Your task to perform on an android device: Look up the best rated book on Goodreads Image 0: 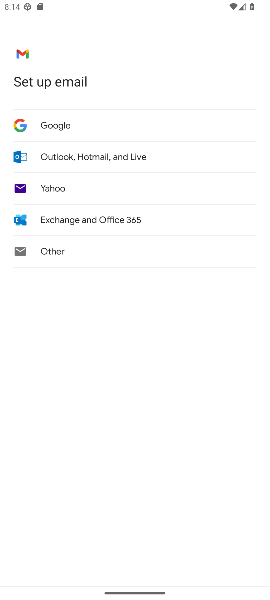
Step 0: press home button
Your task to perform on an android device: Look up the best rated book on Goodreads Image 1: 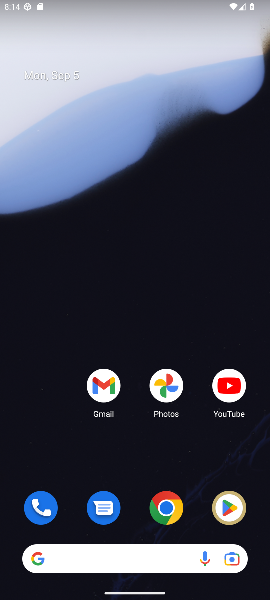
Step 1: click (173, 508)
Your task to perform on an android device: Look up the best rated book on Goodreads Image 2: 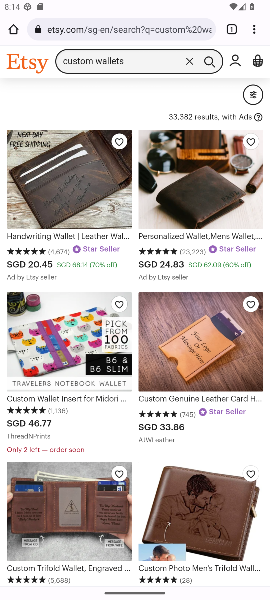
Step 2: click (119, 33)
Your task to perform on an android device: Look up the best rated book on Goodreads Image 3: 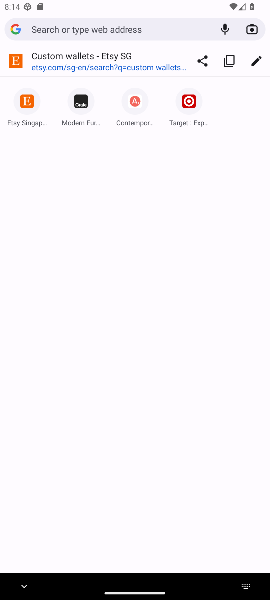
Step 3: type "goodreads"
Your task to perform on an android device: Look up the best rated book on Goodreads Image 4: 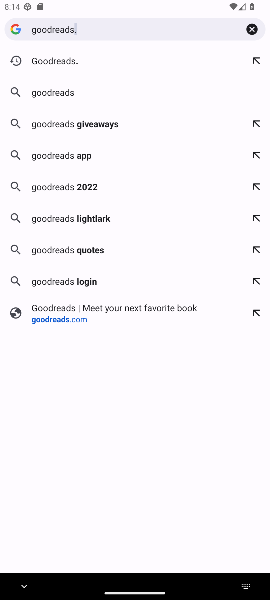
Step 4: click (51, 63)
Your task to perform on an android device: Look up the best rated book on Goodreads Image 5: 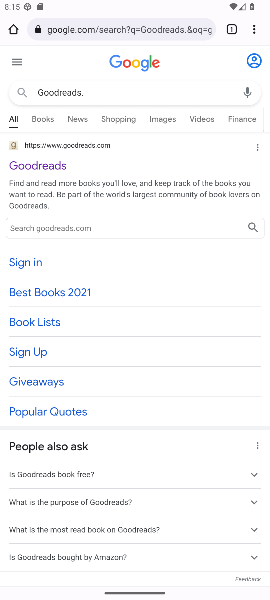
Step 5: click (41, 164)
Your task to perform on an android device: Look up the best rated book on Goodreads Image 6: 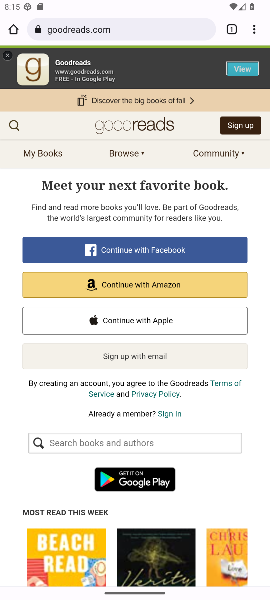
Step 6: click (12, 126)
Your task to perform on an android device: Look up the best rated book on Goodreads Image 7: 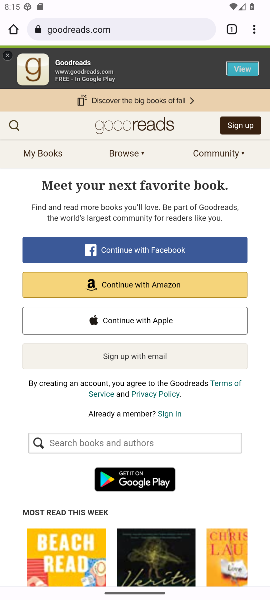
Step 7: click (14, 124)
Your task to perform on an android device: Look up the best rated book on Goodreads Image 8: 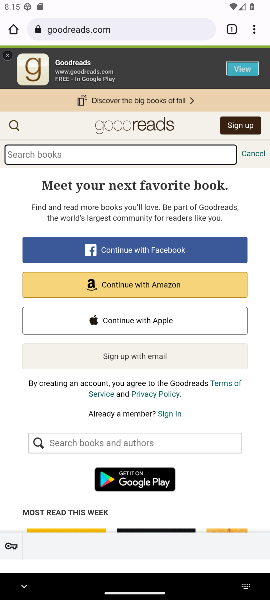
Step 8: type "best rated book"
Your task to perform on an android device: Look up the best rated book on Goodreads Image 9: 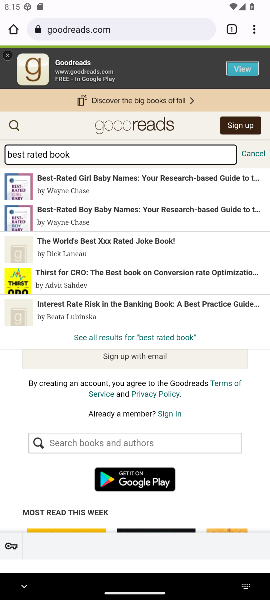
Step 9: task complete